Your task to perform on an android device: change the clock display to analog Image 0: 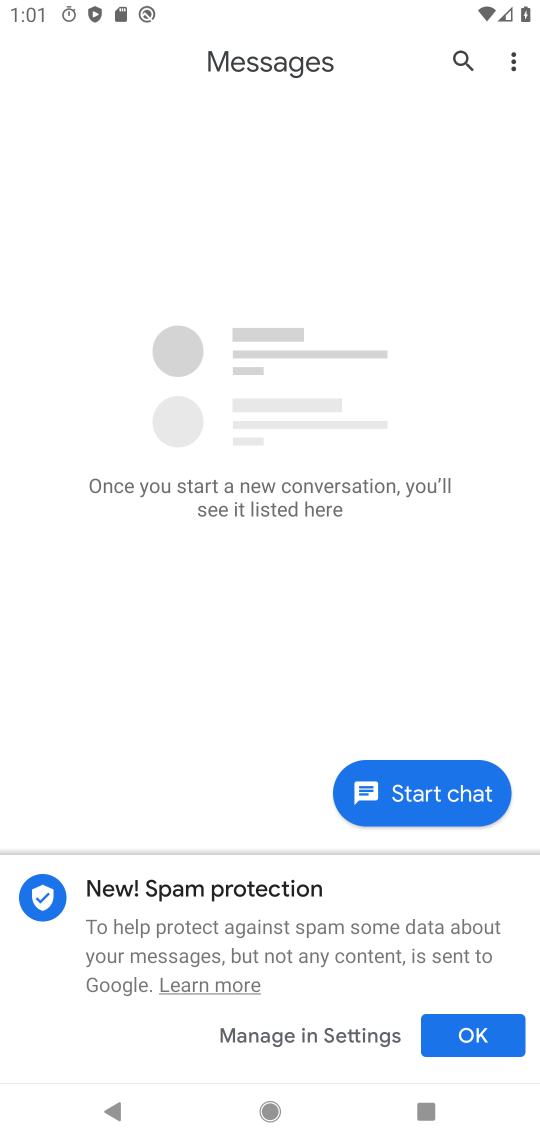
Step 0: press home button
Your task to perform on an android device: change the clock display to analog Image 1: 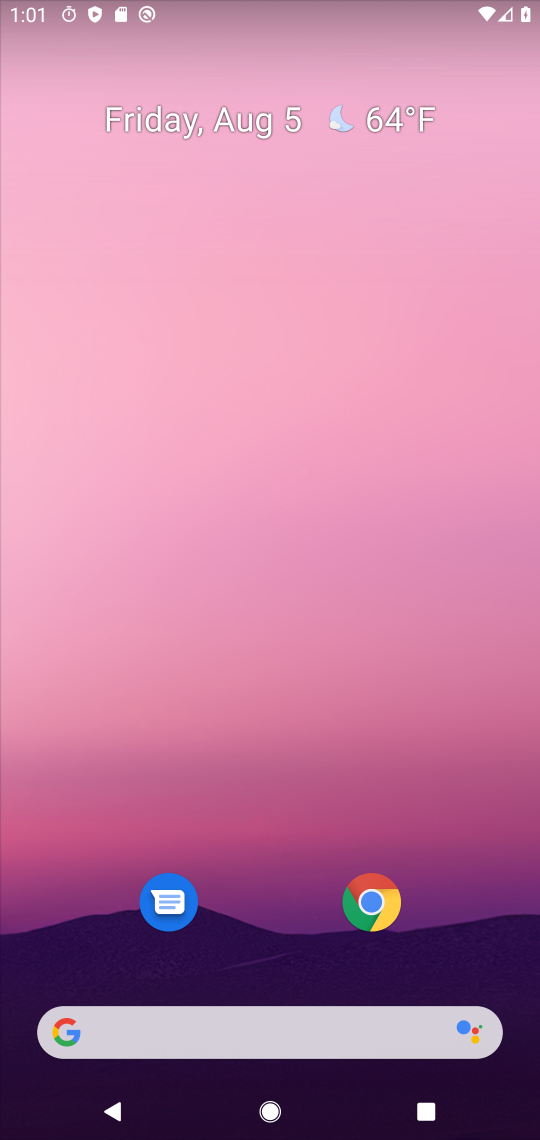
Step 1: drag from (289, 1005) to (268, 468)
Your task to perform on an android device: change the clock display to analog Image 2: 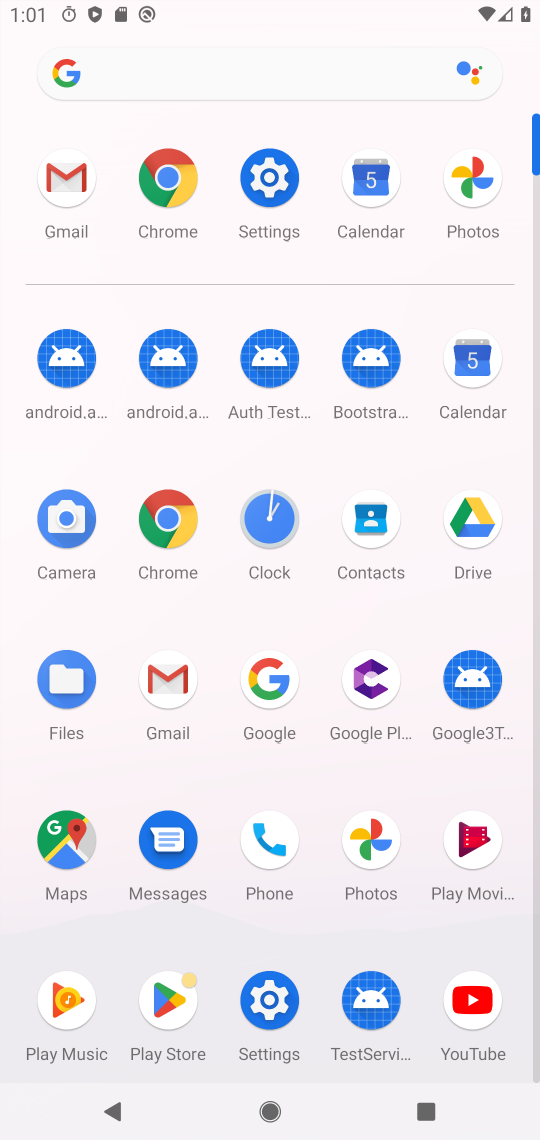
Step 2: click (265, 195)
Your task to perform on an android device: change the clock display to analog Image 3: 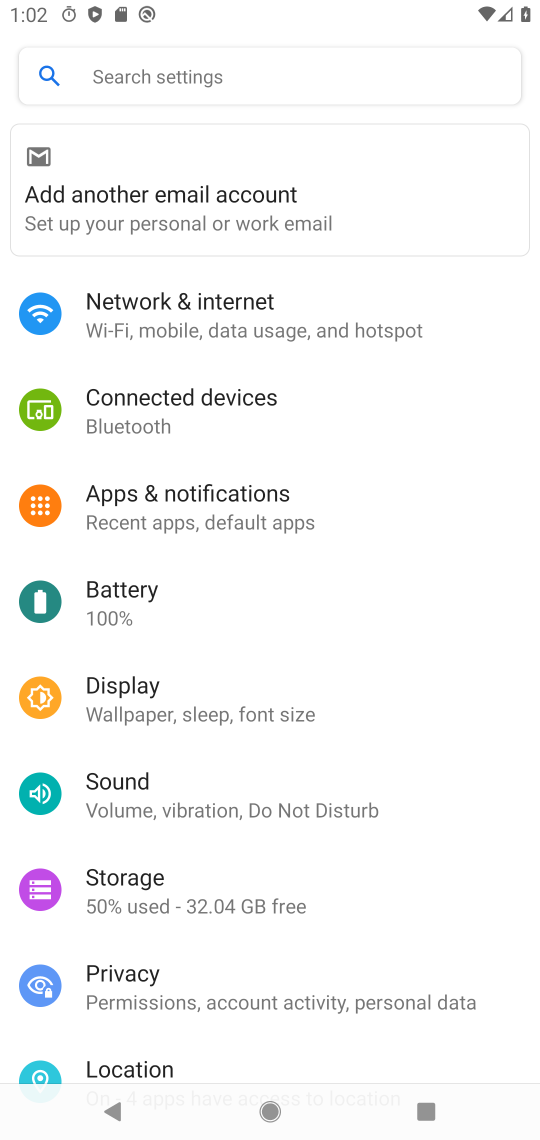
Step 3: click (156, 713)
Your task to perform on an android device: change the clock display to analog Image 4: 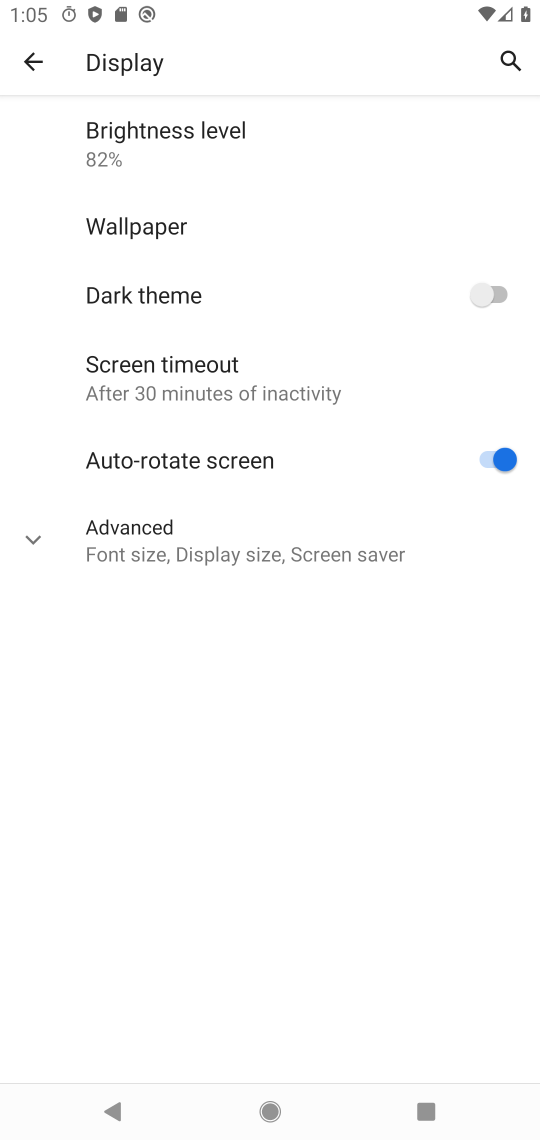
Step 4: task complete